Your task to perform on an android device: Go to Google Image 0: 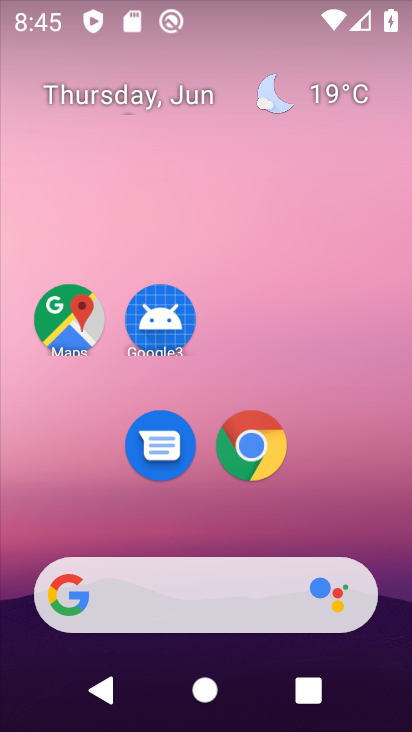
Step 0: drag from (219, 535) to (245, 83)
Your task to perform on an android device: Go to Google Image 1: 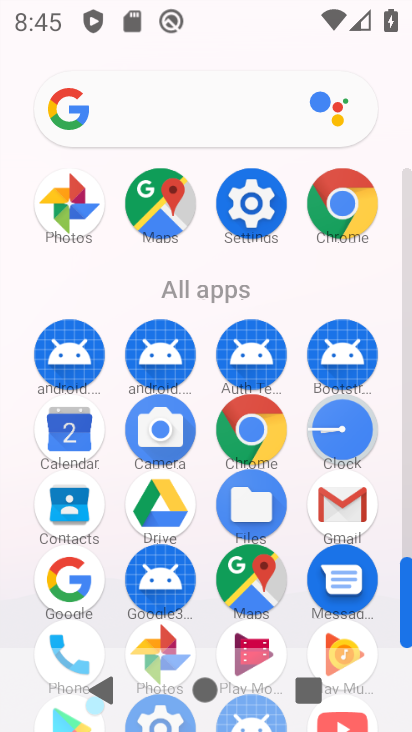
Step 1: click (76, 584)
Your task to perform on an android device: Go to Google Image 2: 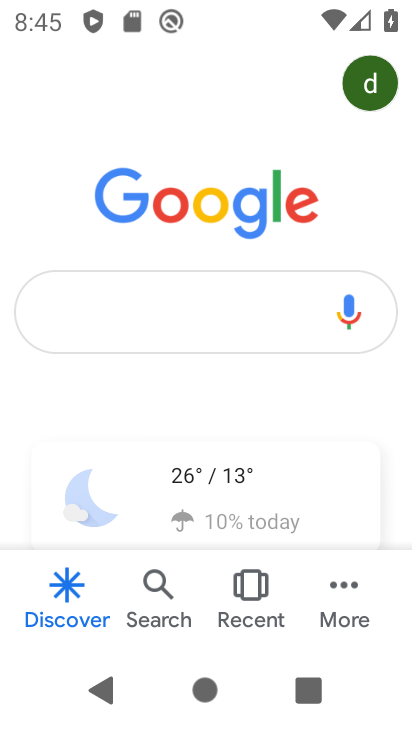
Step 2: task complete